Your task to perform on an android device: Search for "beats solo 3" on bestbuy, select the first entry, add it to the cart, then select checkout. Image 0: 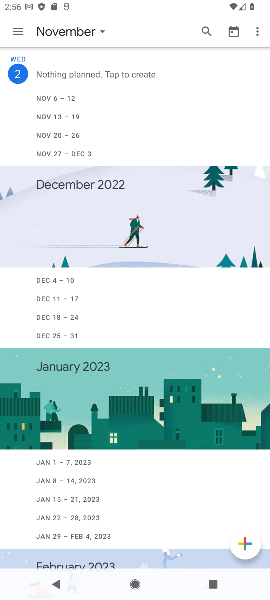
Step 0: press home button
Your task to perform on an android device: Search for "beats solo 3" on bestbuy, select the first entry, add it to the cart, then select checkout. Image 1: 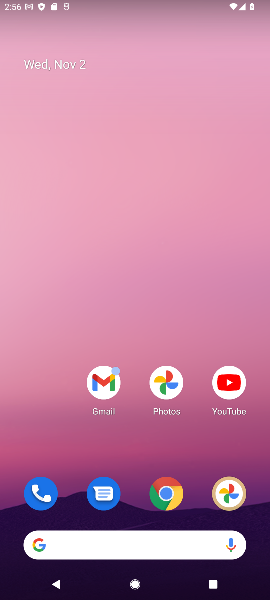
Step 1: click (162, 487)
Your task to perform on an android device: Search for "beats solo 3" on bestbuy, select the first entry, add it to the cart, then select checkout. Image 2: 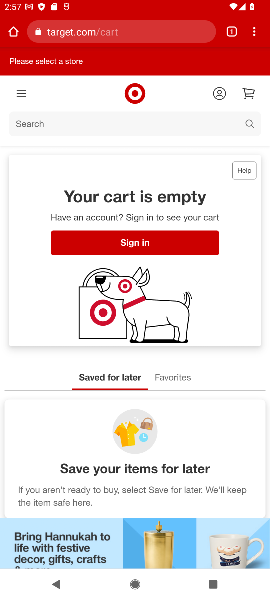
Step 2: click (159, 28)
Your task to perform on an android device: Search for "beats solo 3" on bestbuy, select the first entry, add it to the cart, then select checkout. Image 3: 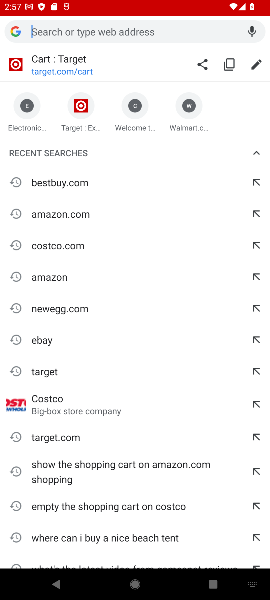
Step 3: press enter
Your task to perform on an android device: Search for "beats solo 3" on bestbuy, select the first entry, add it to the cart, then select checkout. Image 4: 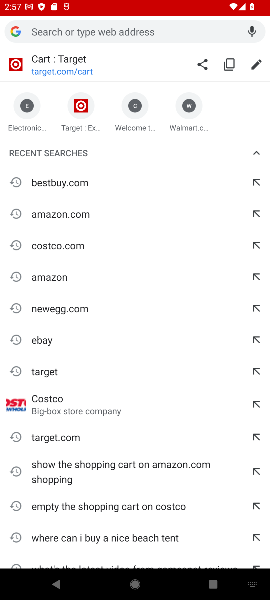
Step 4: type "bestbuy"
Your task to perform on an android device: Search for "beats solo 3" on bestbuy, select the first entry, add it to the cart, then select checkout. Image 5: 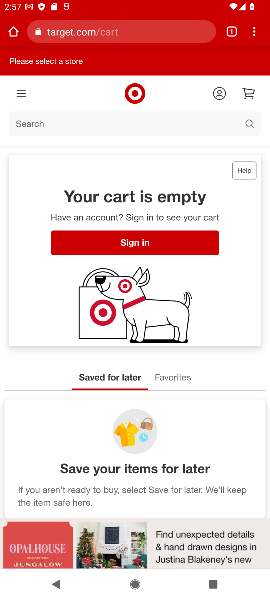
Step 5: click (86, 32)
Your task to perform on an android device: Search for "beats solo 3" on bestbuy, select the first entry, add it to the cart, then select checkout. Image 6: 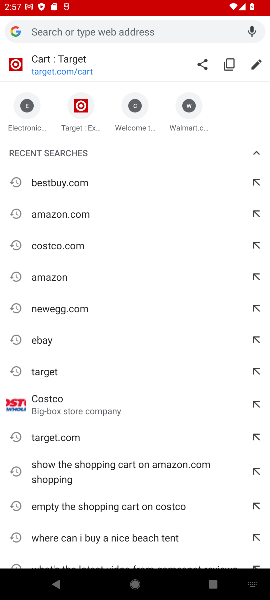
Step 6: press enter
Your task to perform on an android device: Search for "beats solo 3" on bestbuy, select the first entry, add it to the cart, then select checkout. Image 7: 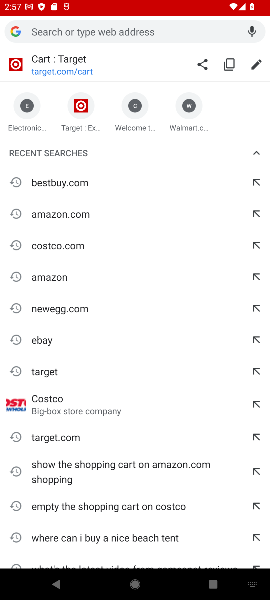
Step 7: type "bestbuy"
Your task to perform on an android device: Search for "beats solo 3" on bestbuy, select the first entry, add it to the cart, then select checkout. Image 8: 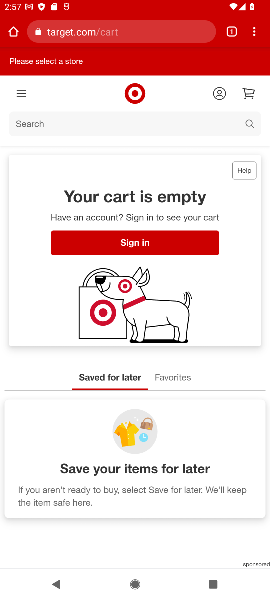
Step 8: click (15, 36)
Your task to perform on an android device: Search for "beats solo 3" on bestbuy, select the first entry, add it to the cart, then select checkout. Image 9: 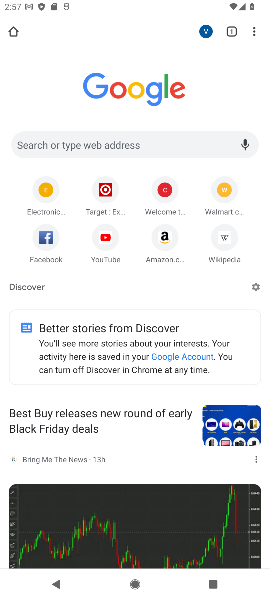
Step 9: click (148, 142)
Your task to perform on an android device: Search for "beats solo 3" on bestbuy, select the first entry, add it to the cart, then select checkout. Image 10: 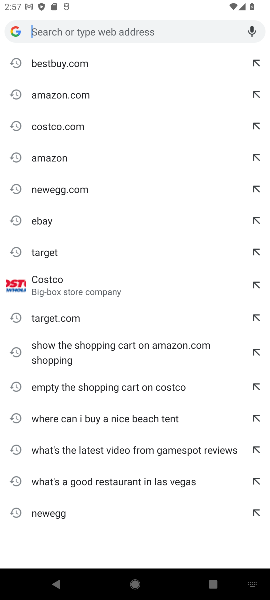
Step 10: press enter
Your task to perform on an android device: Search for "beats solo 3" on bestbuy, select the first entry, add it to the cart, then select checkout. Image 11: 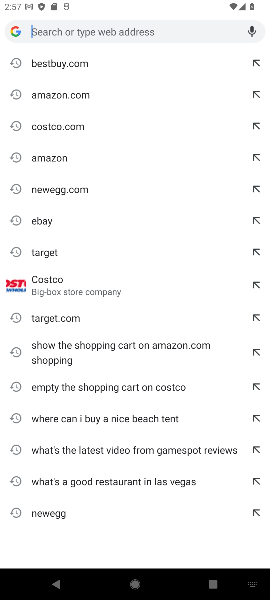
Step 11: type "bestbuy"
Your task to perform on an android device: Search for "beats solo 3" on bestbuy, select the first entry, add it to the cart, then select checkout. Image 12: 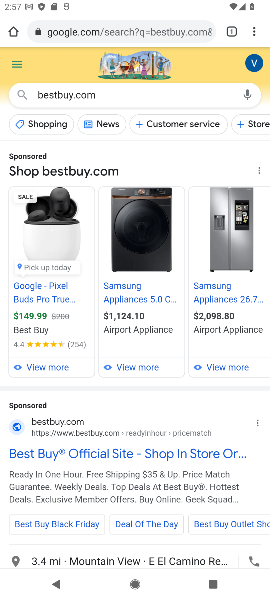
Step 12: click (63, 424)
Your task to perform on an android device: Search for "beats solo 3" on bestbuy, select the first entry, add it to the cart, then select checkout. Image 13: 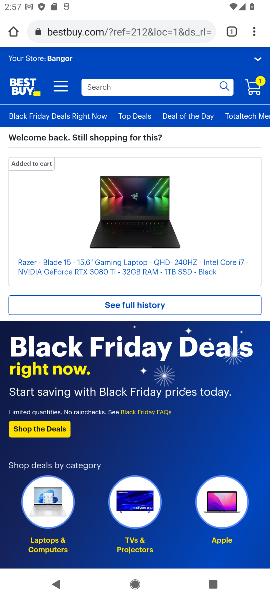
Step 13: click (139, 86)
Your task to perform on an android device: Search for "beats solo 3" on bestbuy, select the first entry, add it to the cart, then select checkout. Image 14: 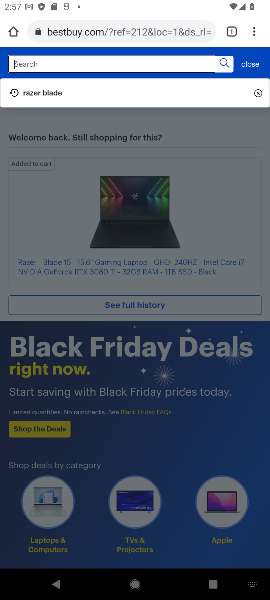
Step 14: press enter
Your task to perform on an android device: Search for "beats solo 3" on bestbuy, select the first entry, add it to the cart, then select checkout. Image 15: 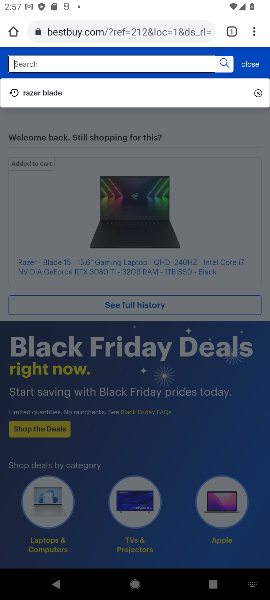
Step 15: type "beats solo 3"
Your task to perform on an android device: Search for "beats solo 3" on bestbuy, select the first entry, add it to the cart, then select checkout. Image 16: 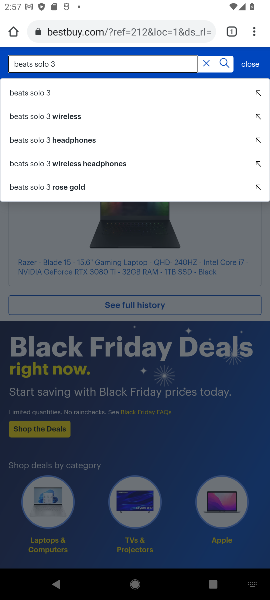
Step 16: click (37, 90)
Your task to perform on an android device: Search for "beats solo 3" on bestbuy, select the first entry, add it to the cart, then select checkout. Image 17: 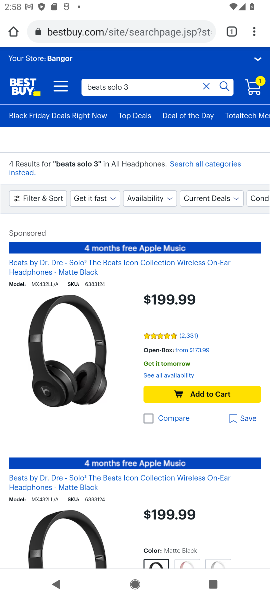
Step 17: click (64, 356)
Your task to perform on an android device: Search for "beats solo 3" on bestbuy, select the first entry, add it to the cart, then select checkout. Image 18: 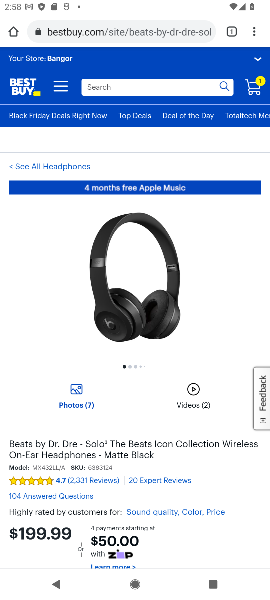
Step 18: drag from (125, 379) to (189, 137)
Your task to perform on an android device: Search for "beats solo 3" on bestbuy, select the first entry, add it to the cart, then select checkout. Image 19: 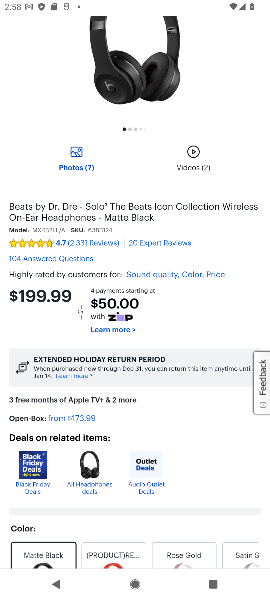
Step 19: drag from (176, 412) to (176, 119)
Your task to perform on an android device: Search for "beats solo 3" on bestbuy, select the first entry, add it to the cart, then select checkout. Image 20: 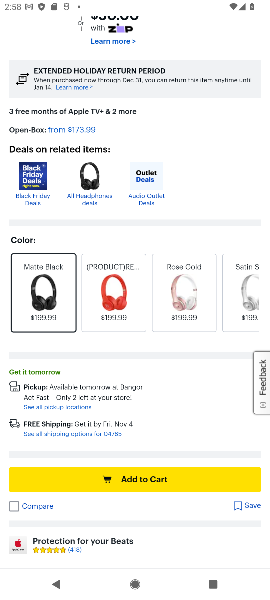
Step 20: click (176, 478)
Your task to perform on an android device: Search for "beats solo 3" on bestbuy, select the first entry, add it to the cart, then select checkout. Image 21: 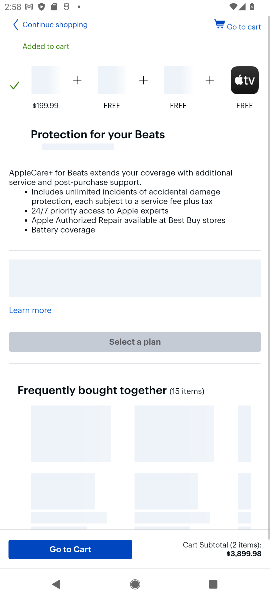
Step 21: click (76, 544)
Your task to perform on an android device: Search for "beats solo 3" on bestbuy, select the first entry, add it to the cart, then select checkout. Image 22: 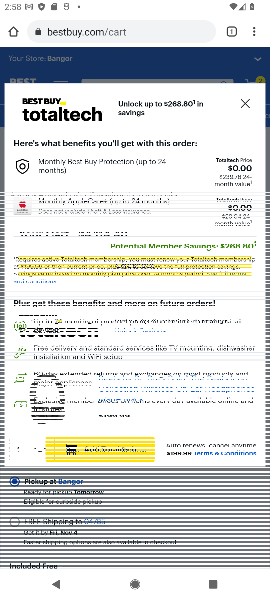
Step 22: click (245, 101)
Your task to perform on an android device: Search for "beats solo 3" on bestbuy, select the first entry, add it to the cart, then select checkout. Image 23: 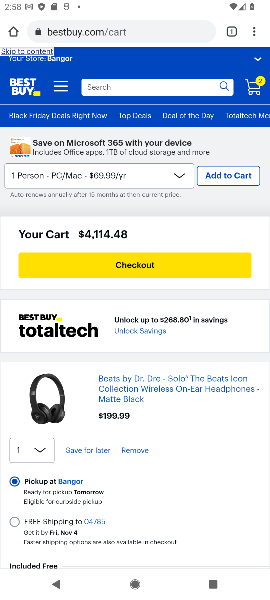
Step 23: click (141, 263)
Your task to perform on an android device: Search for "beats solo 3" on bestbuy, select the first entry, add it to the cart, then select checkout. Image 24: 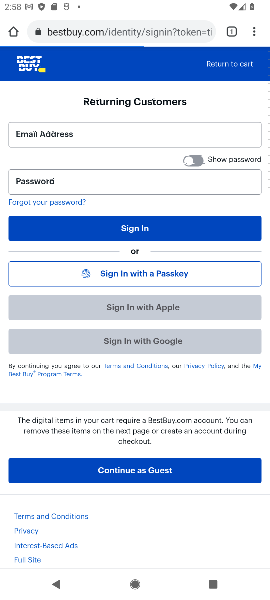
Step 24: task complete